Your task to perform on an android device: install app "Firefox Browser" Image 0: 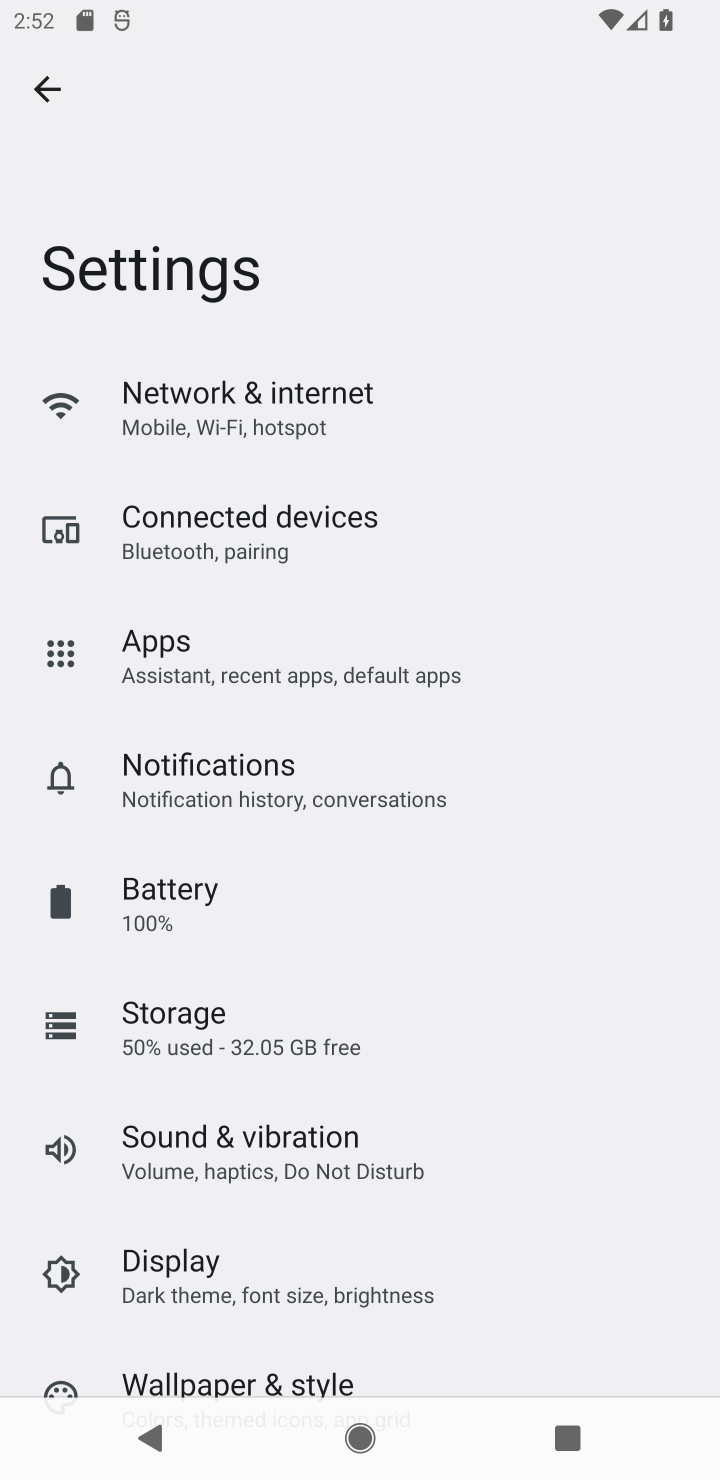
Step 0: press home button
Your task to perform on an android device: install app "Firefox Browser" Image 1: 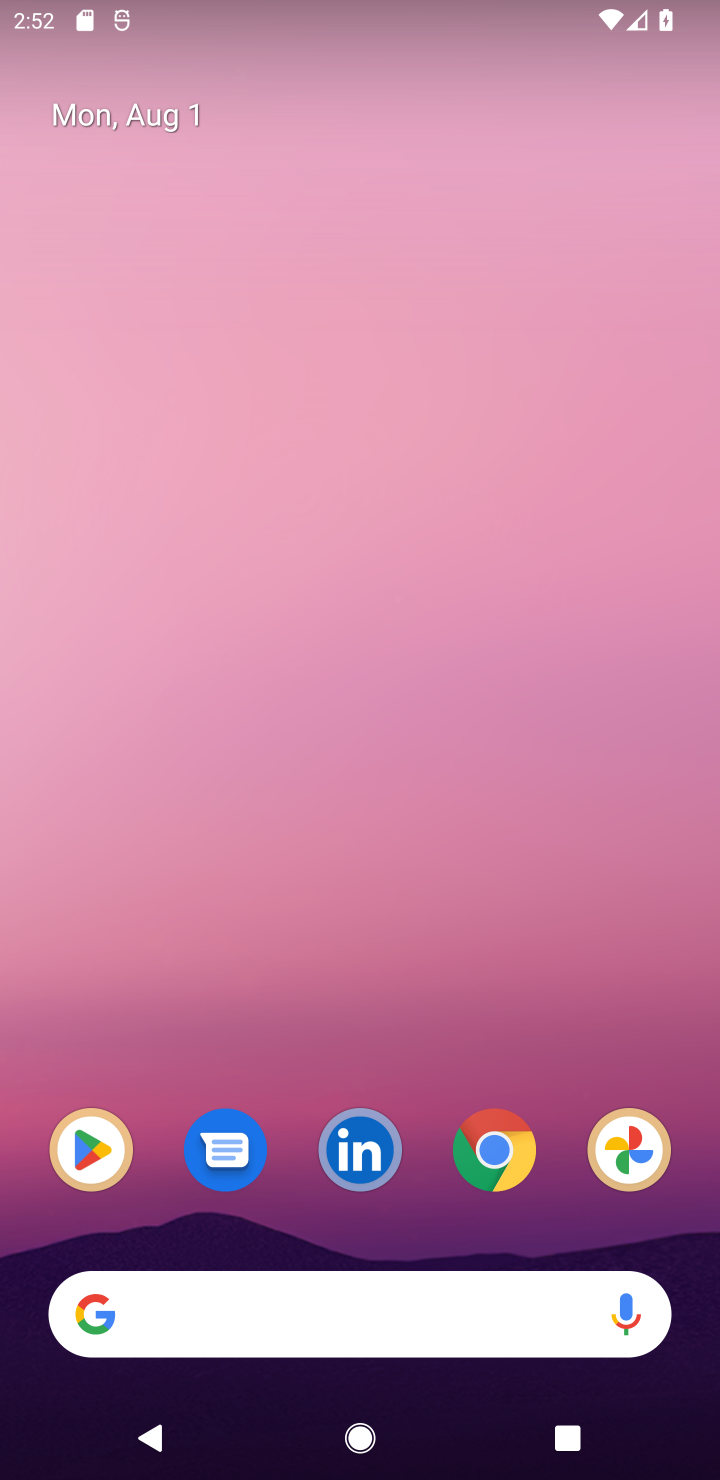
Step 1: drag from (429, 443) to (423, 3)
Your task to perform on an android device: install app "Firefox Browser" Image 2: 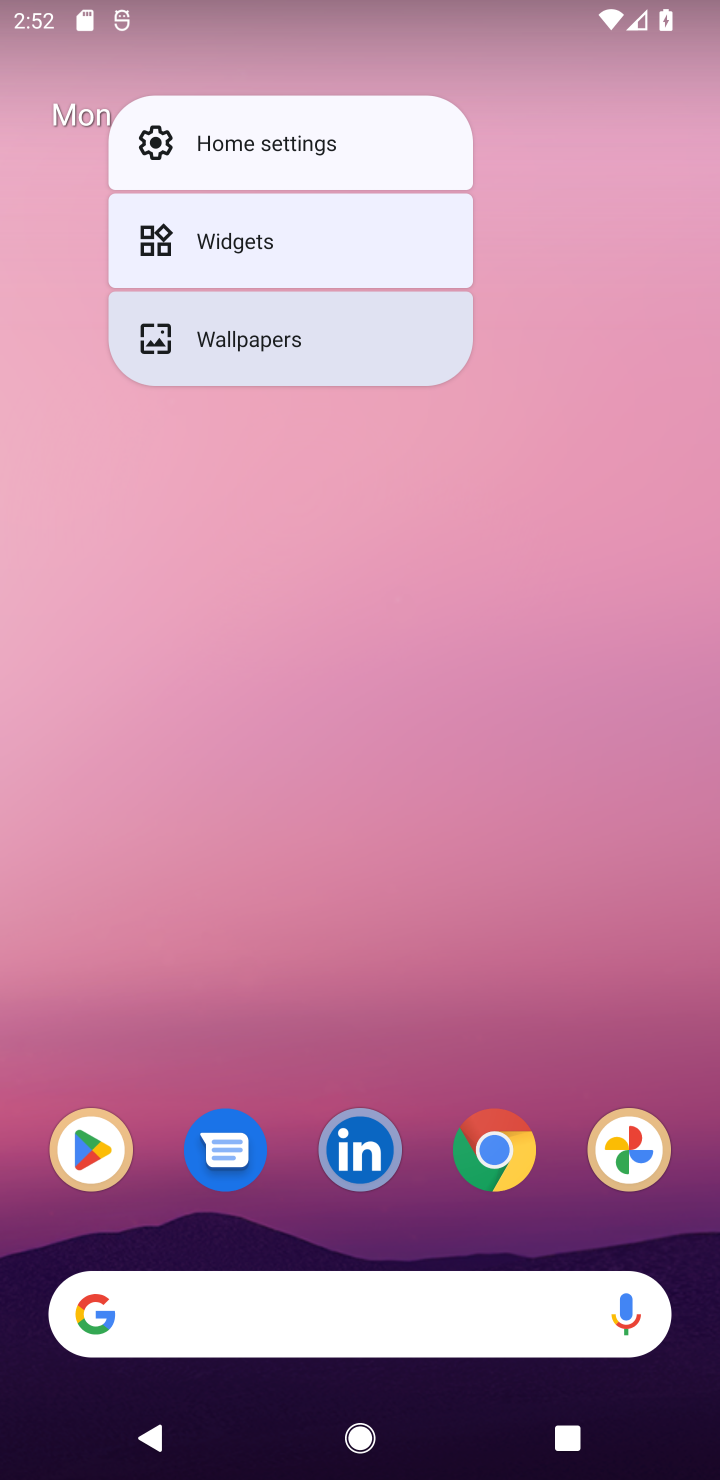
Step 2: click (317, 757)
Your task to perform on an android device: install app "Firefox Browser" Image 3: 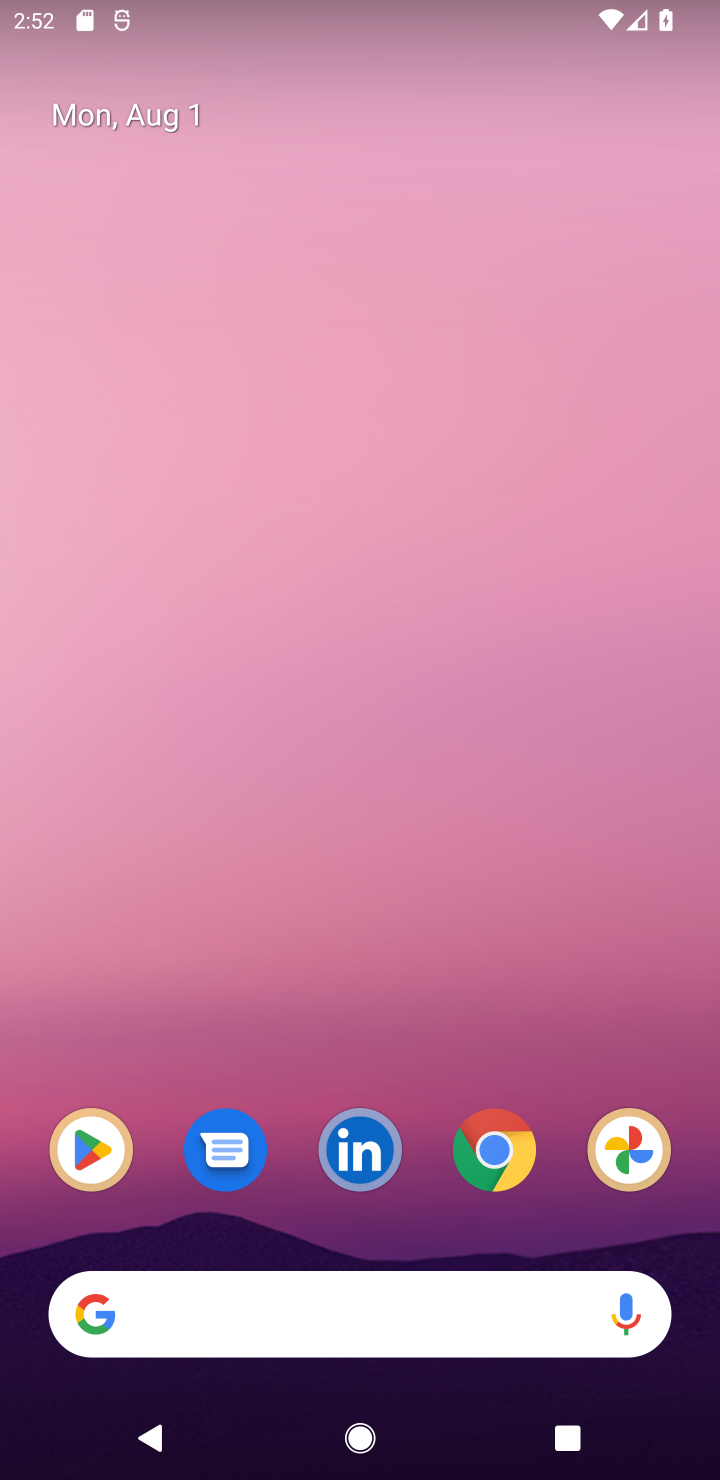
Step 3: drag from (420, 1000) to (402, 413)
Your task to perform on an android device: install app "Firefox Browser" Image 4: 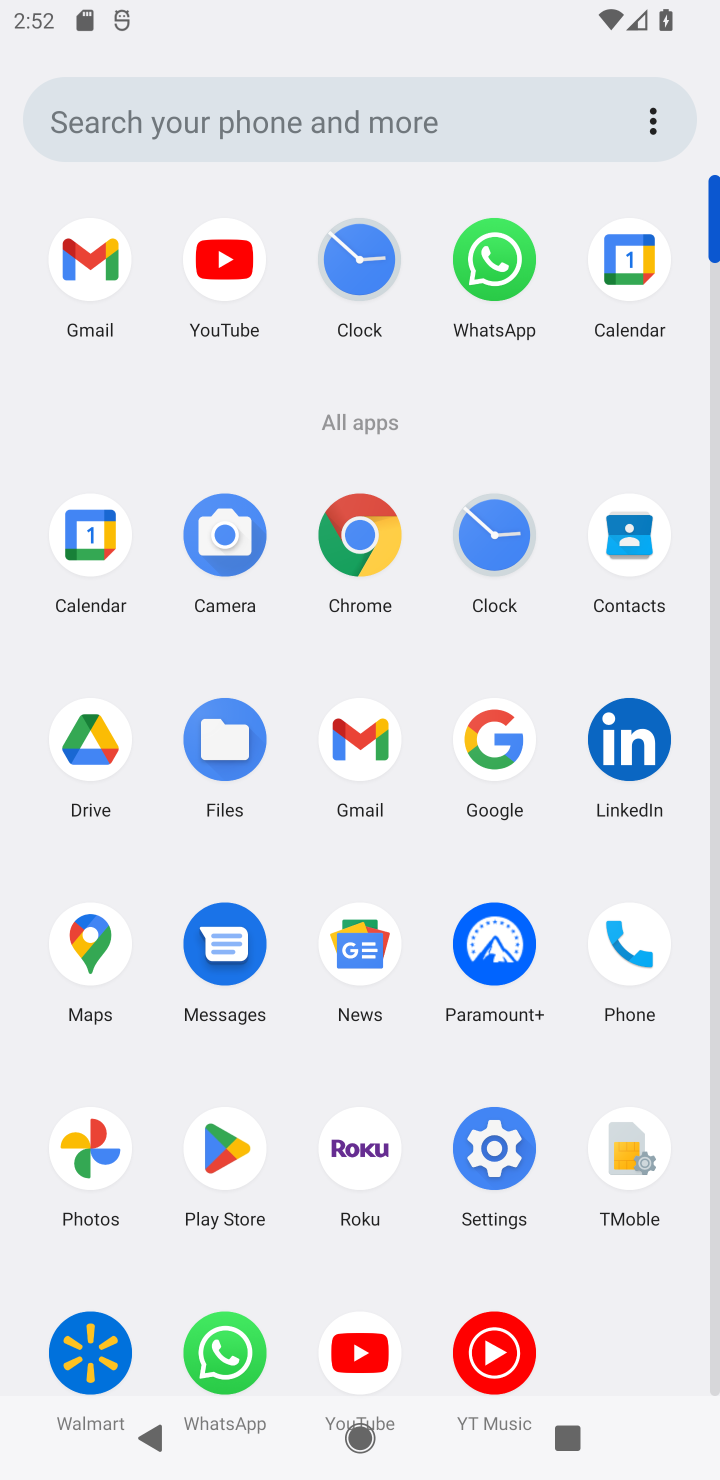
Step 4: click (226, 1162)
Your task to perform on an android device: install app "Firefox Browser" Image 5: 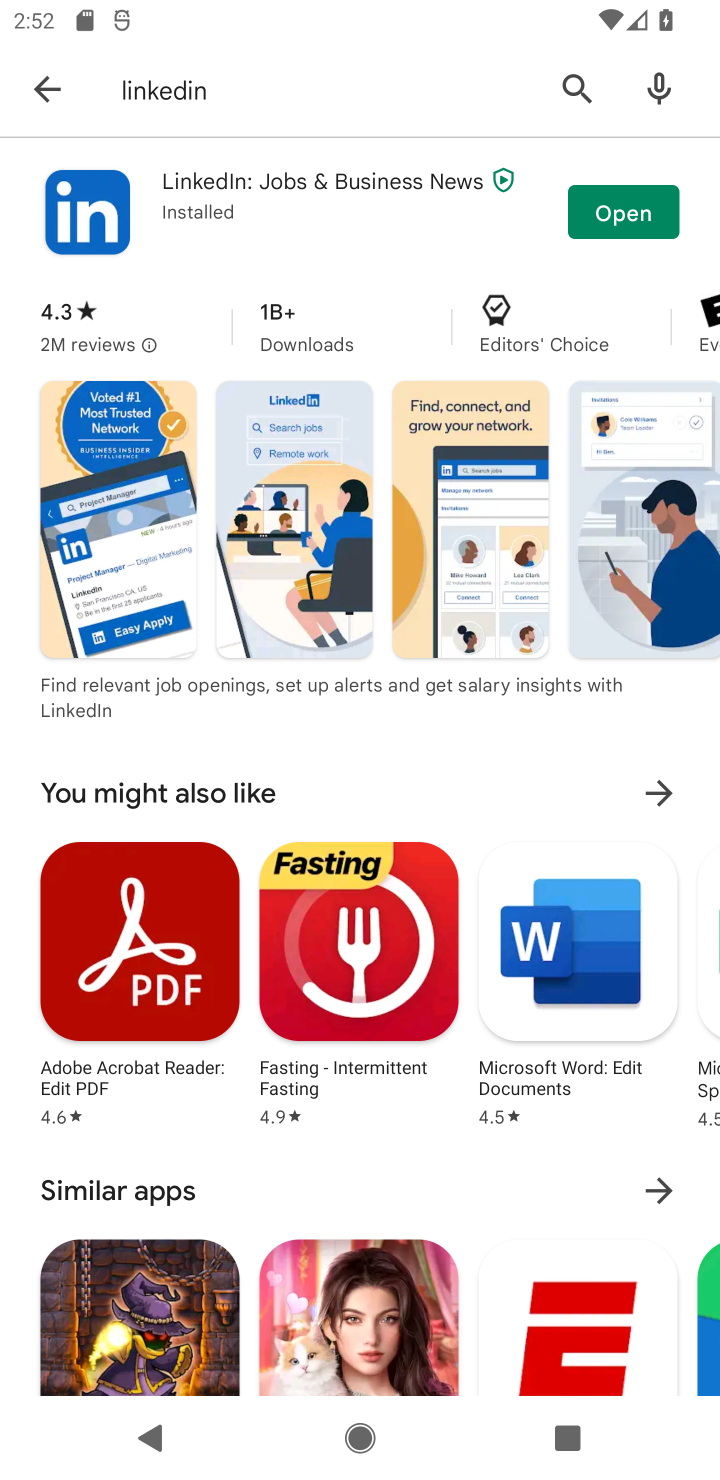
Step 5: click (559, 93)
Your task to perform on an android device: install app "Firefox Browser" Image 6: 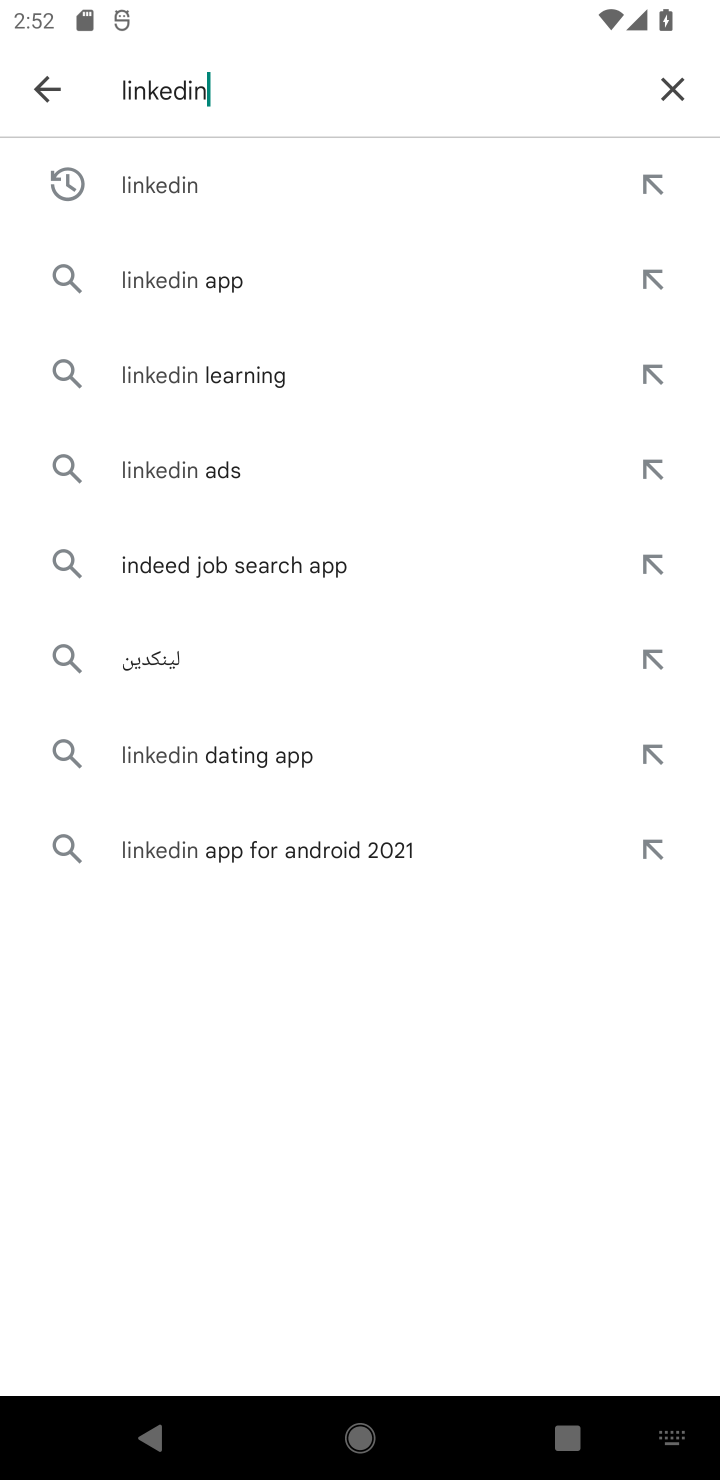
Step 6: click (694, 93)
Your task to perform on an android device: install app "Firefox Browser" Image 7: 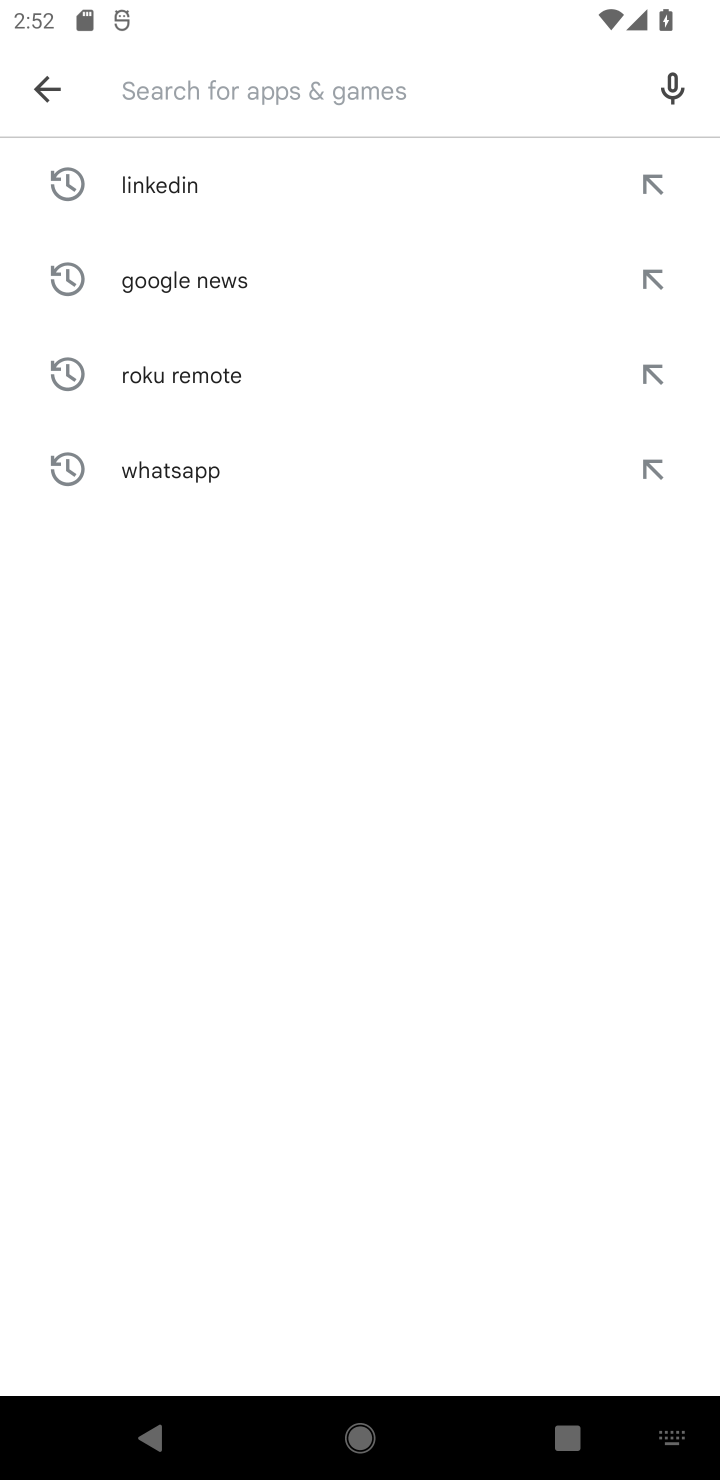
Step 7: type "firefox"
Your task to perform on an android device: install app "Firefox Browser" Image 8: 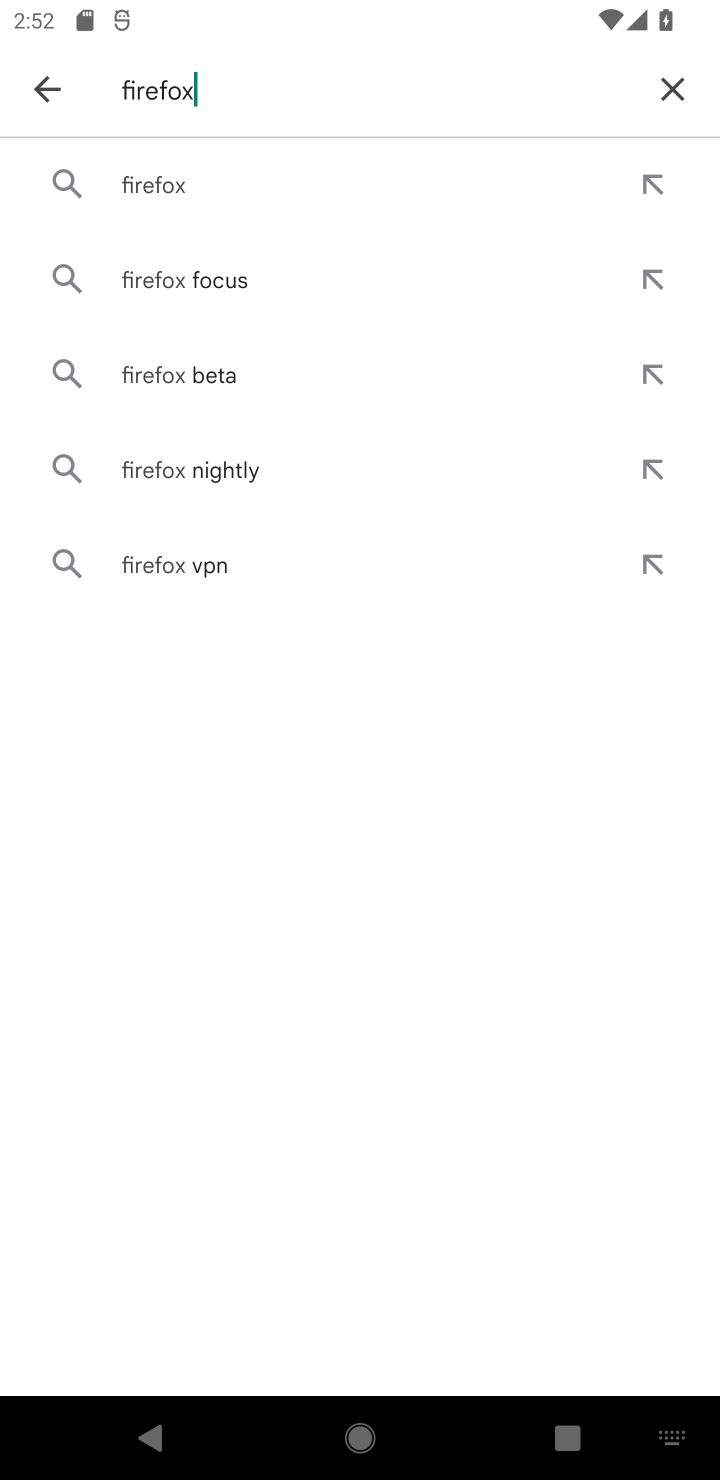
Step 8: click (222, 191)
Your task to perform on an android device: install app "Firefox Browser" Image 9: 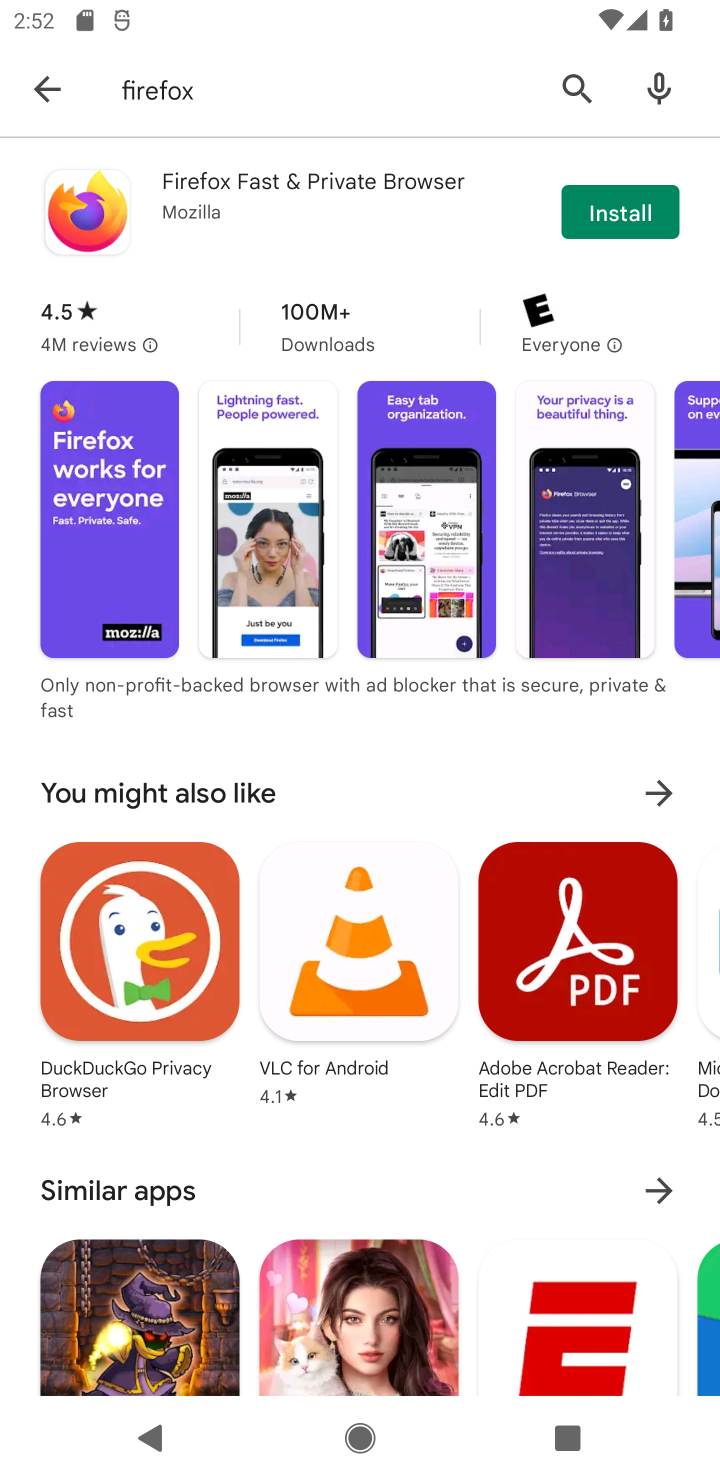
Step 9: click (565, 202)
Your task to perform on an android device: install app "Firefox Browser" Image 10: 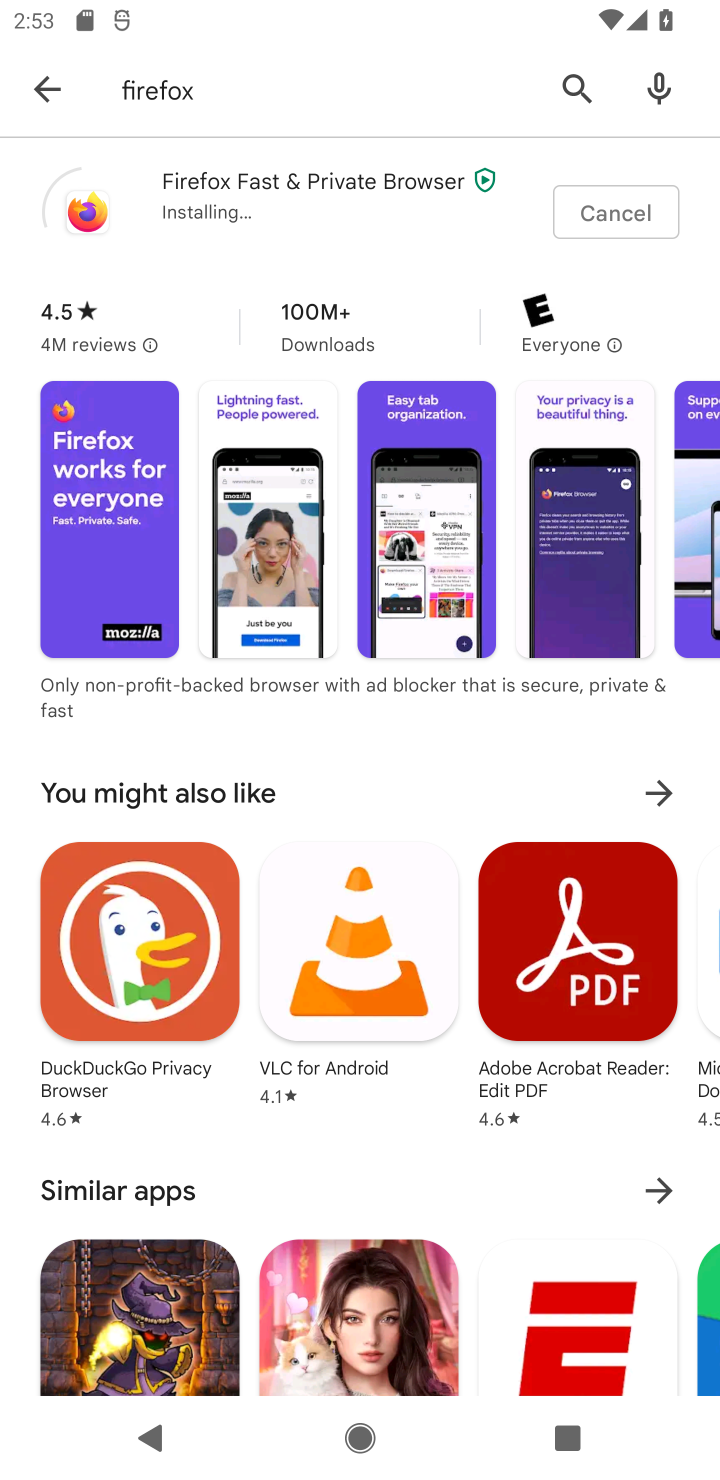
Step 10: task complete